Your task to perform on an android device: Open network settings Image 0: 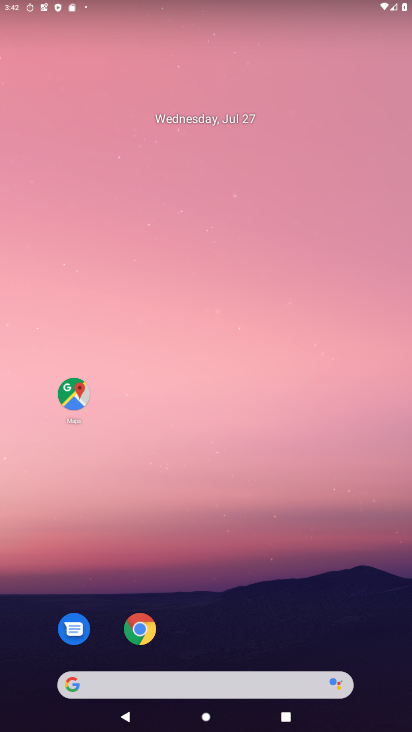
Step 0: drag from (289, 548) to (237, 58)
Your task to perform on an android device: Open network settings Image 1: 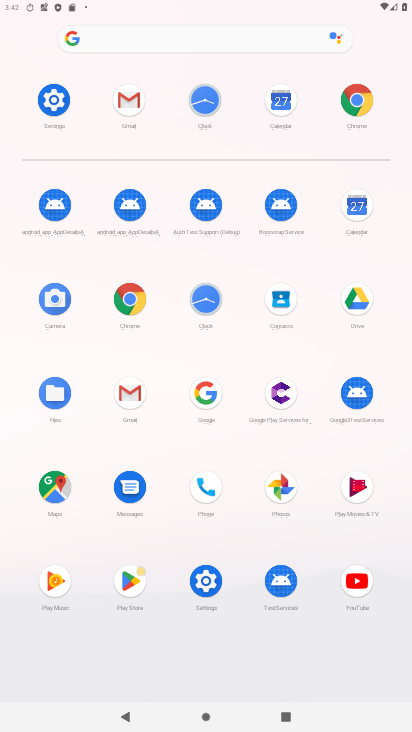
Step 1: click (59, 101)
Your task to perform on an android device: Open network settings Image 2: 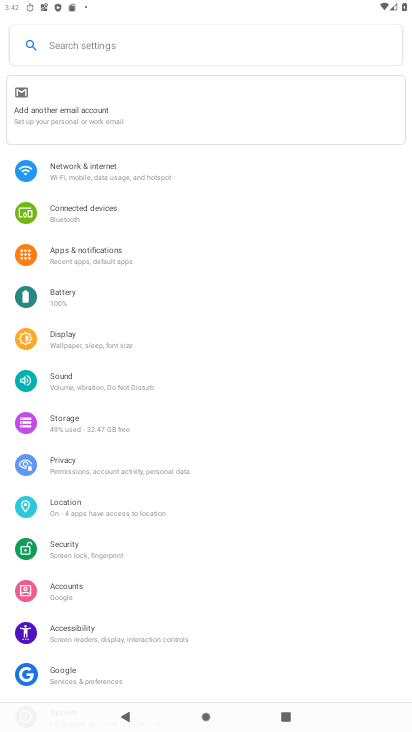
Step 2: click (113, 151)
Your task to perform on an android device: Open network settings Image 3: 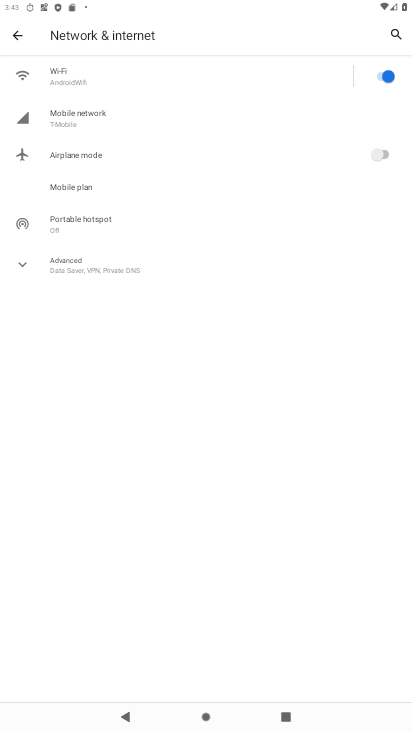
Step 3: task complete